Your task to perform on an android device: see creations saved in the google photos Image 0: 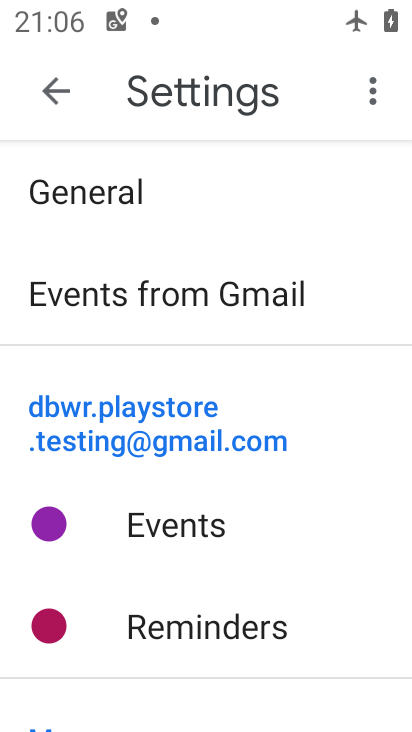
Step 0: press back button
Your task to perform on an android device: see creations saved in the google photos Image 1: 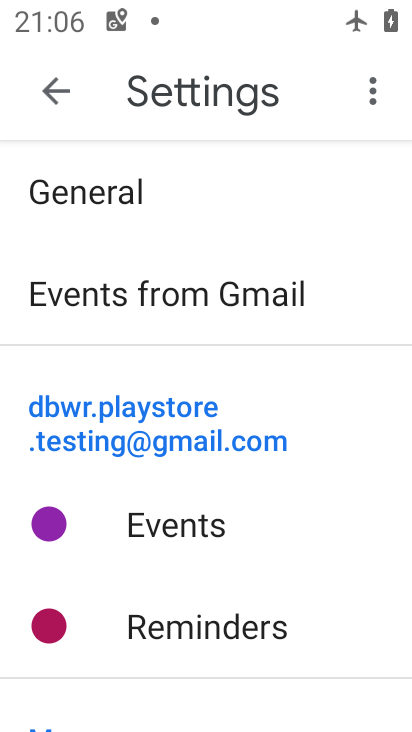
Step 1: press back button
Your task to perform on an android device: see creations saved in the google photos Image 2: 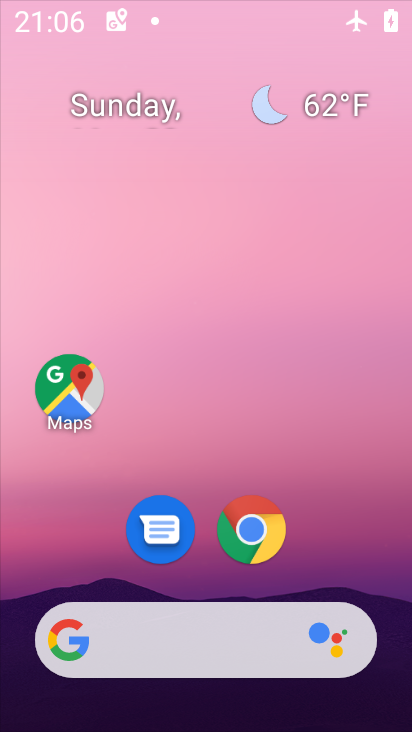
Step 2: press back button
Your task to perform on an android device: see creations saved in the google photos Image 3: 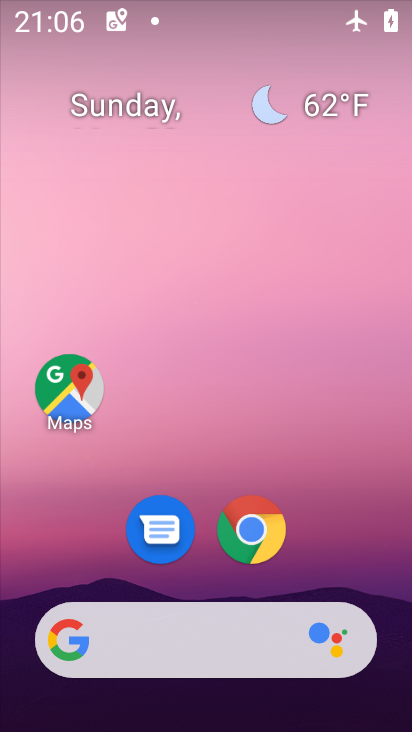
Step 3: click (34, 102)
Your task to perform on an android device: see creations saved in the google photos Image 4: 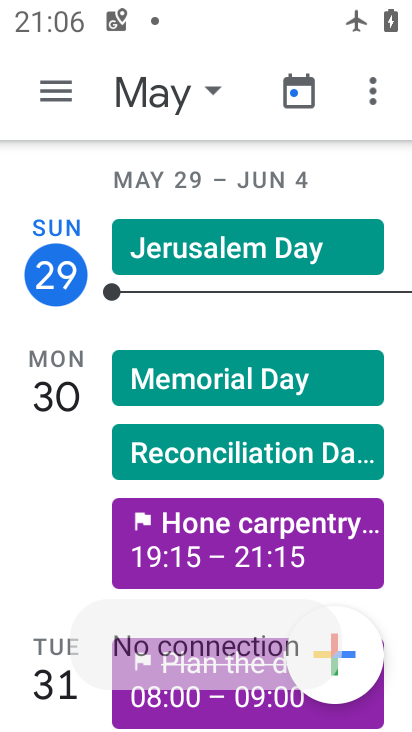
Step 4: press back button
Your task to perform on an android device: see creations saved in the google photos Image 5: 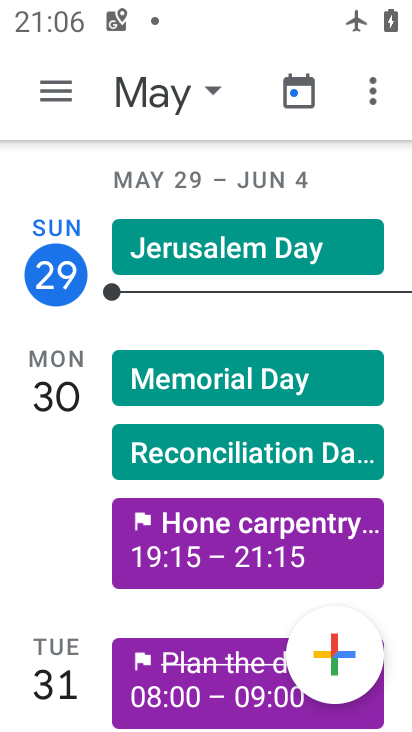
Step 5: press back button
Your task to perform on an android device: see creations saved in the google photos Image 6: 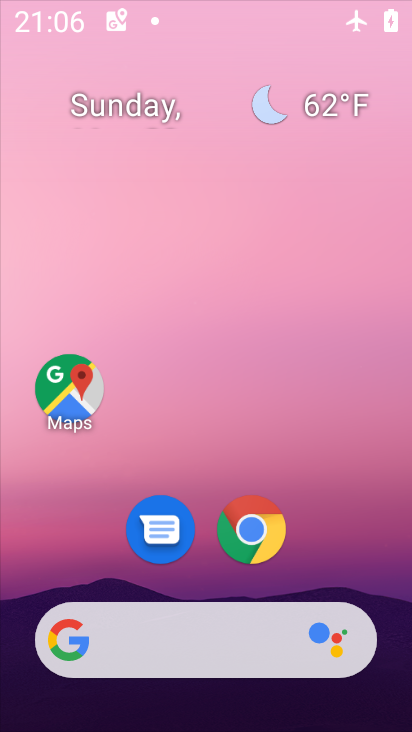
Step 6: press back button
Your task to perform on an android device: see creations saved in the google photos Image 7: 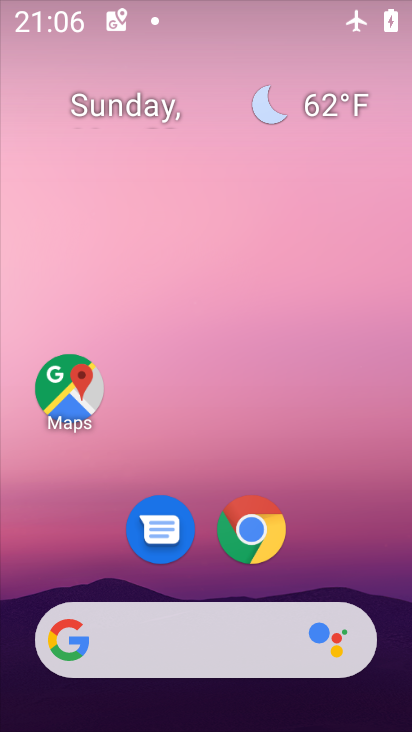
Step 7: press back button
Your task to perform on an android device: see creations saved in the google photos Image 8: 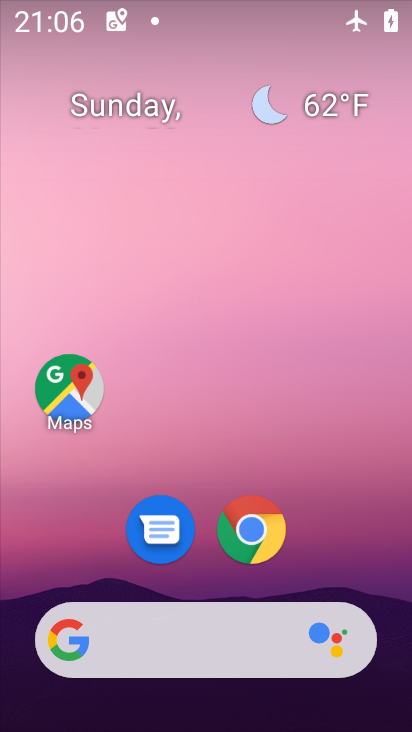
Step 8: drag from (292, 650) to (189, 174)
Your task to perform on an android device: see creations saved in the google photos Image 9: 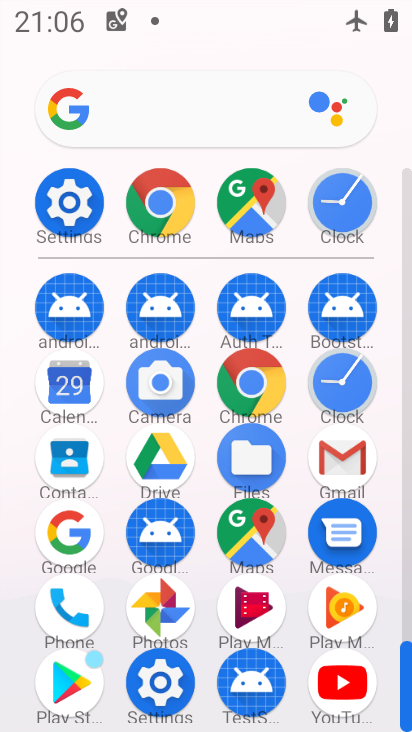
Step 9: click (155, 603)
Your task to perform on an android device: see creations saved in the google photos Image 10: 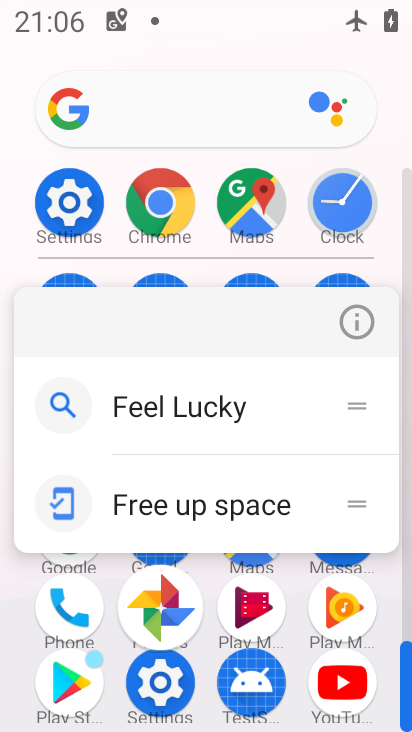
Step 10: click (151, 608)
Your task to perform on an android device: see creations saved in the google photos Image 11: 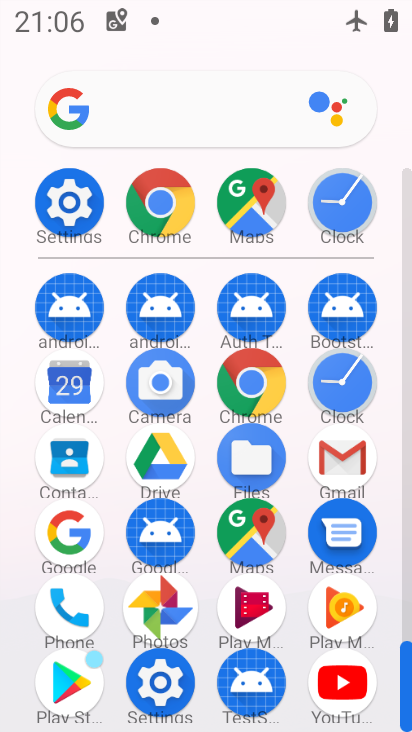
Step 11: click (145, 605)
Your task to perform on an android device: see creations saved in the google photos Image 12: 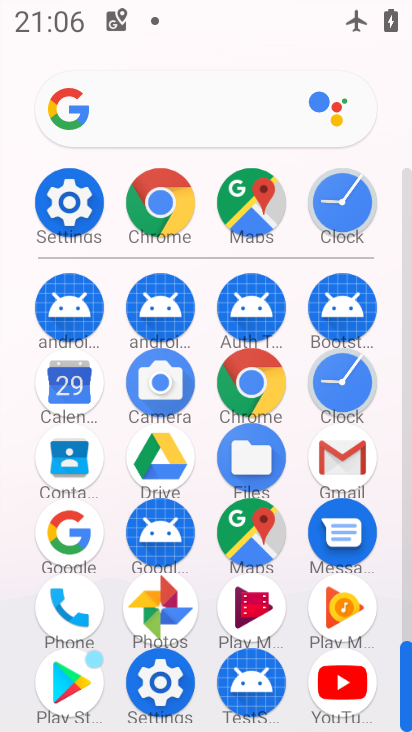
Step 12: click (146, 604)
Your task to perform on an android device: see creations saved in the google photos Image 13: 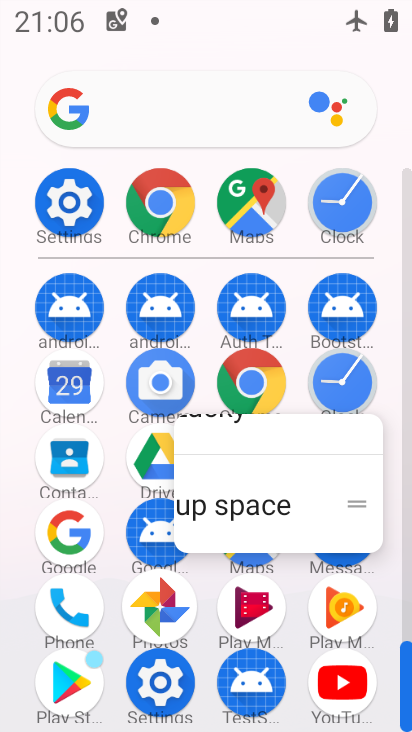
Step 13: click (146, 604)
Your task to perform on an android device: see creations saved in the google photos Image 14: 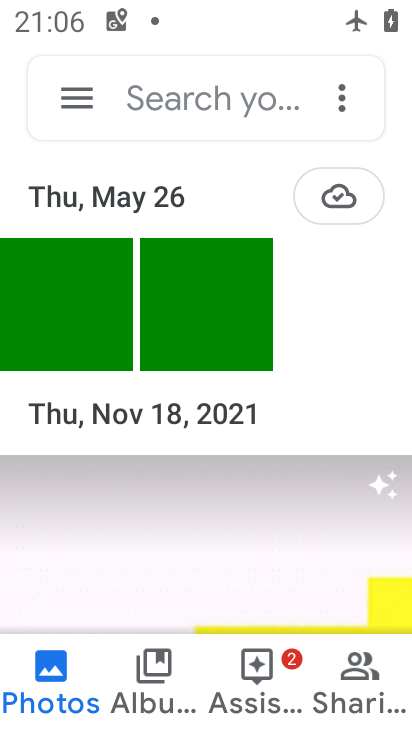
Step 14: task complete